Your task to perform on an android device: Search for a tv stand on Ikea Image 0: 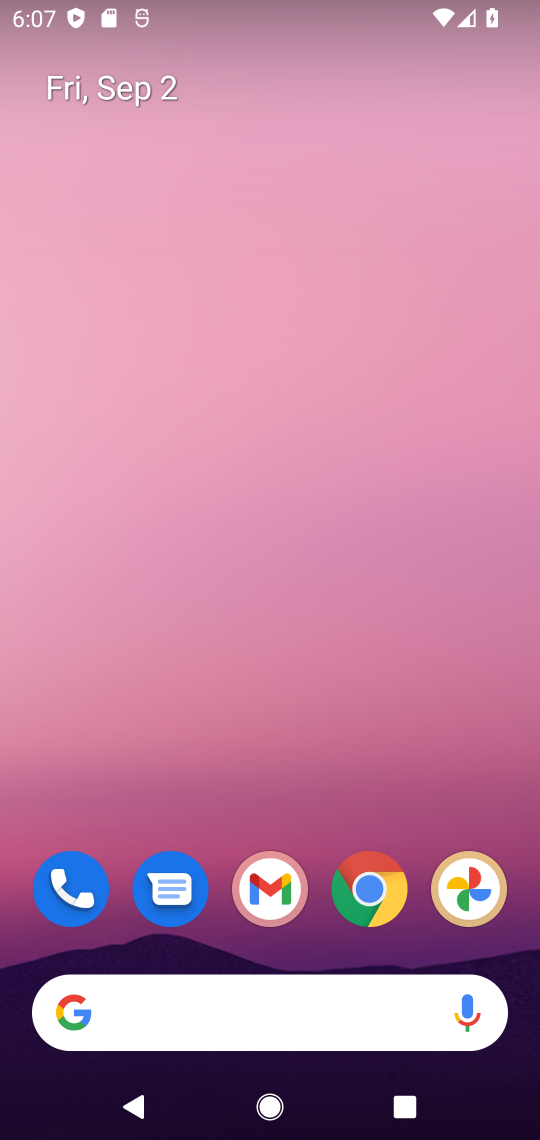
Step 0: click (253, 1032)
Your task to perform on an android device: Search for a tv stand on Ikea Image 1: 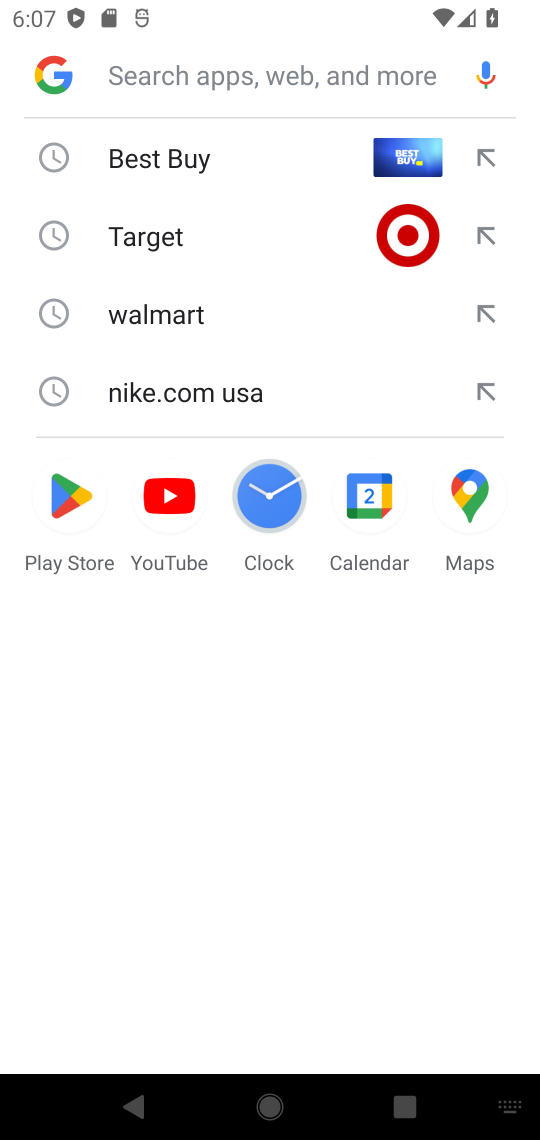
Step 1: type "Ikea"
Your task to perform on an android device: Search for a tv stand on Ikea Image 2: 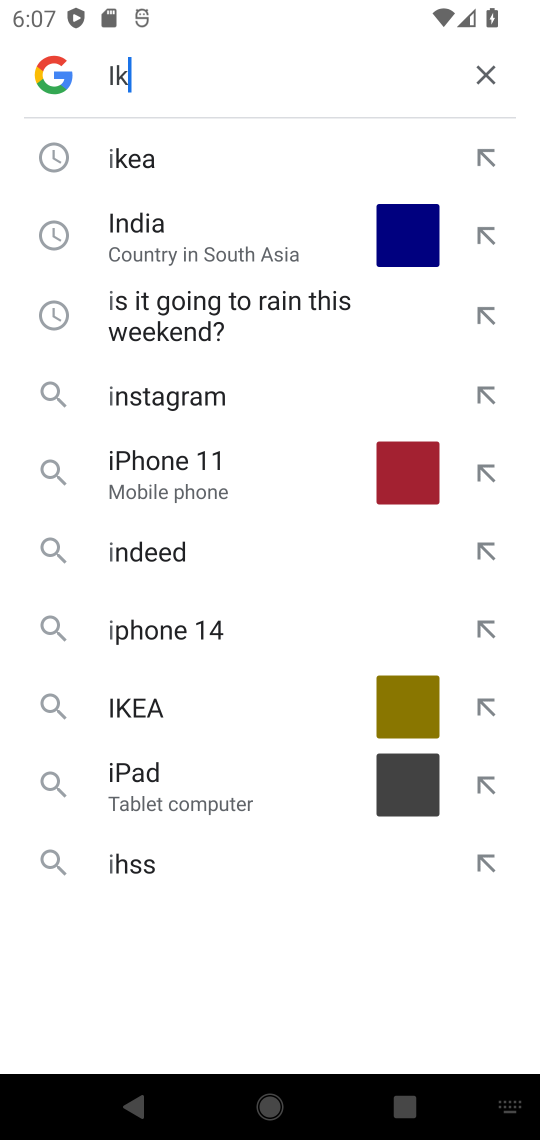
Step 2: type ""
Your task to perform on an android device: Search for a tv stand on Ikea Image 3: 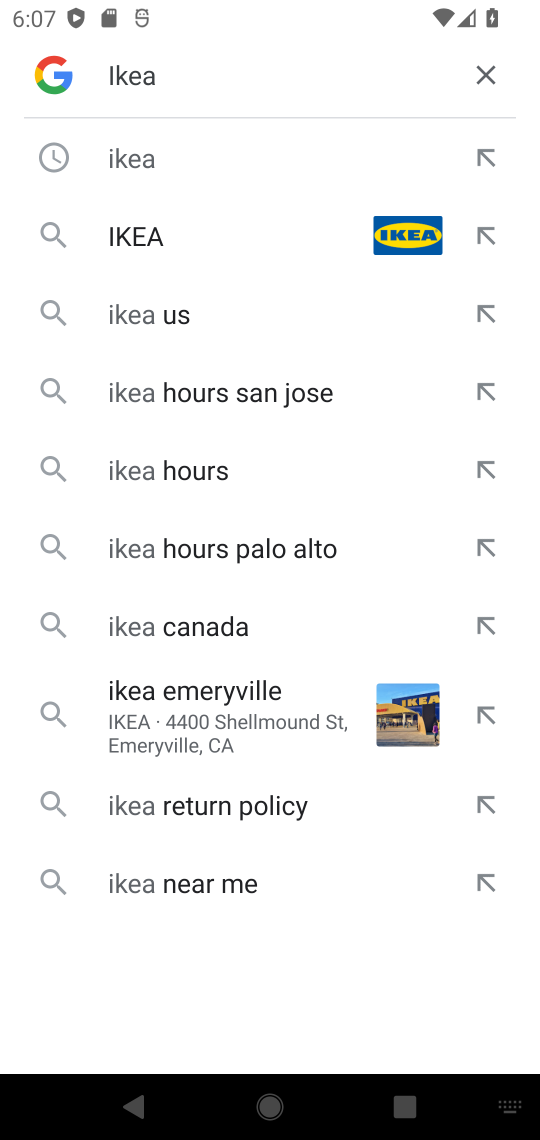
Step 3: click (236, 221)
Your task to perform on an android device: Search for a tv stand on Ikea Image 4: 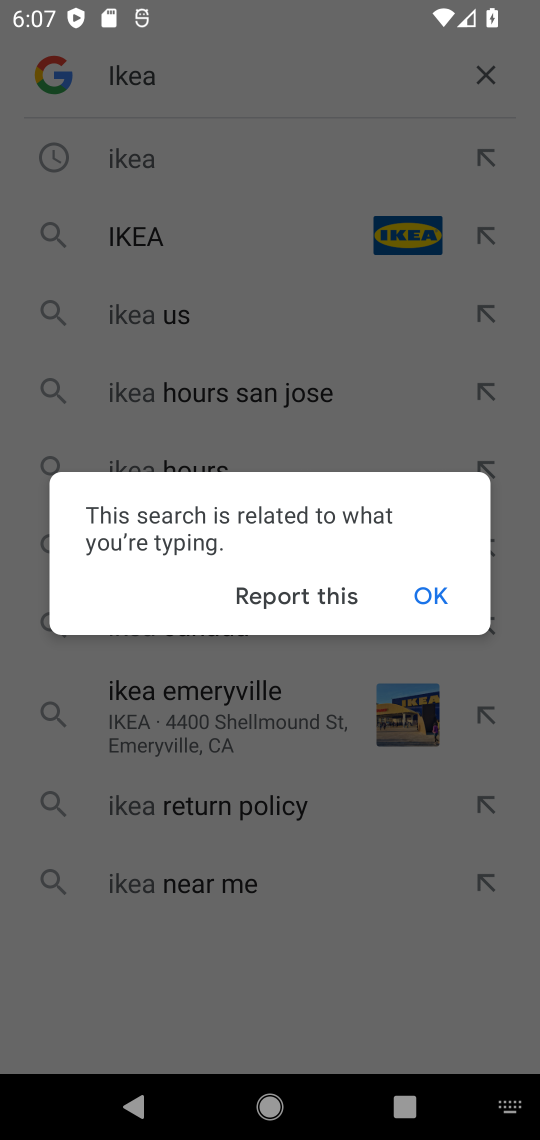
Step 4: click (157, 156)
Your task to perform on an android device: Search for a tv stand on Ikea Image 5: 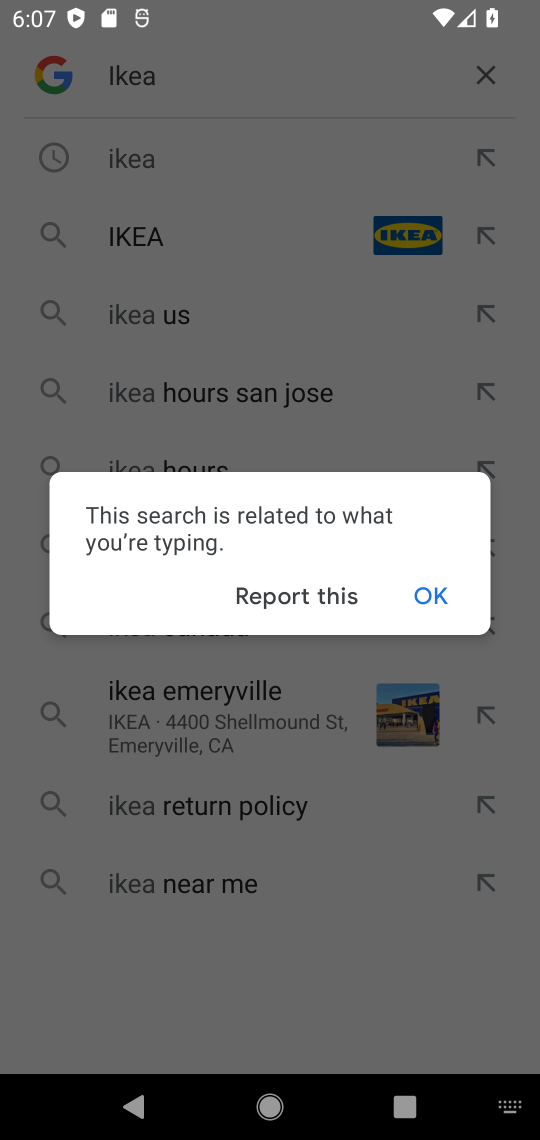
Step 5: click (242, 226)
Your task to perform on an android device: Search for a tv stand on Ikea Image 6: 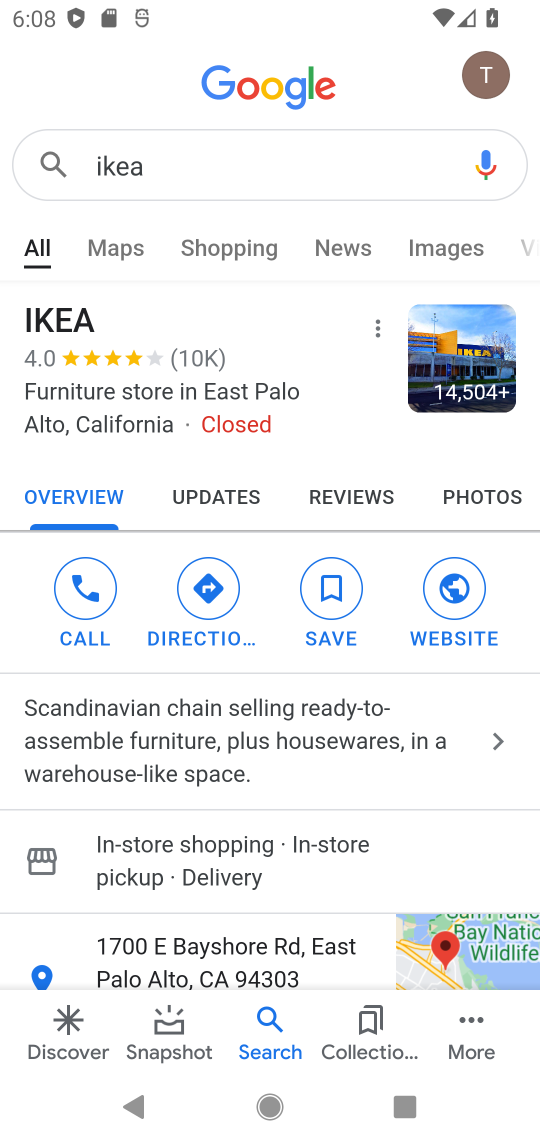
Step 6: drag from (119, 522) to (140, 253)
Your task to perform on an android device: Search for a tv stand on Ikea Image 7: 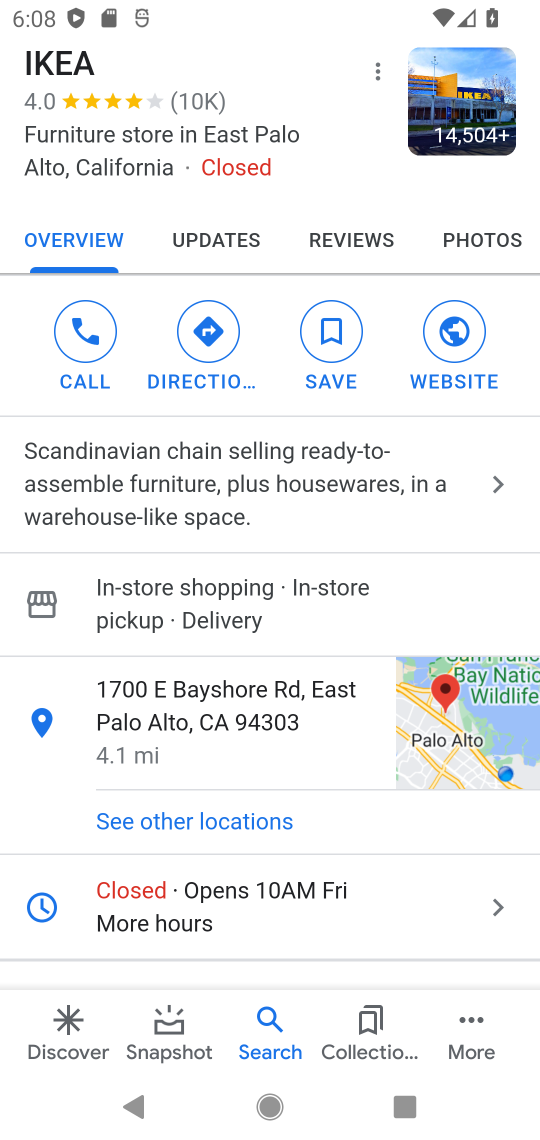
Step 7: drag from (253, 615) to (294, 380)
Your task to perform on an android device: Search for a tv stand on Ikea Image 8: 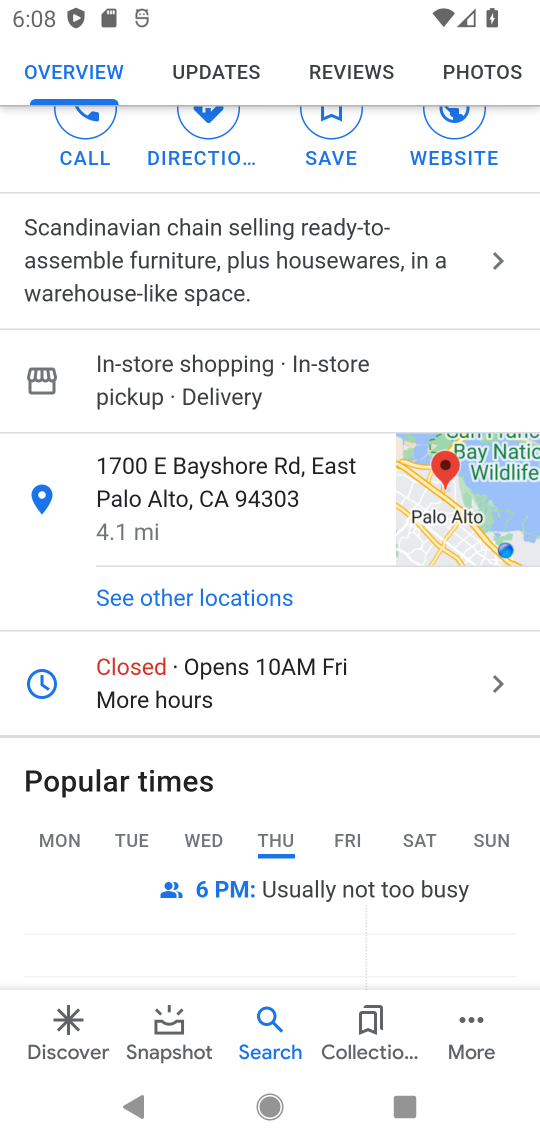
Step 8: drag from (357, 520) to (367, 387)
Your task to perform on an android device: Search for a tv stand on Ikea Image 9: 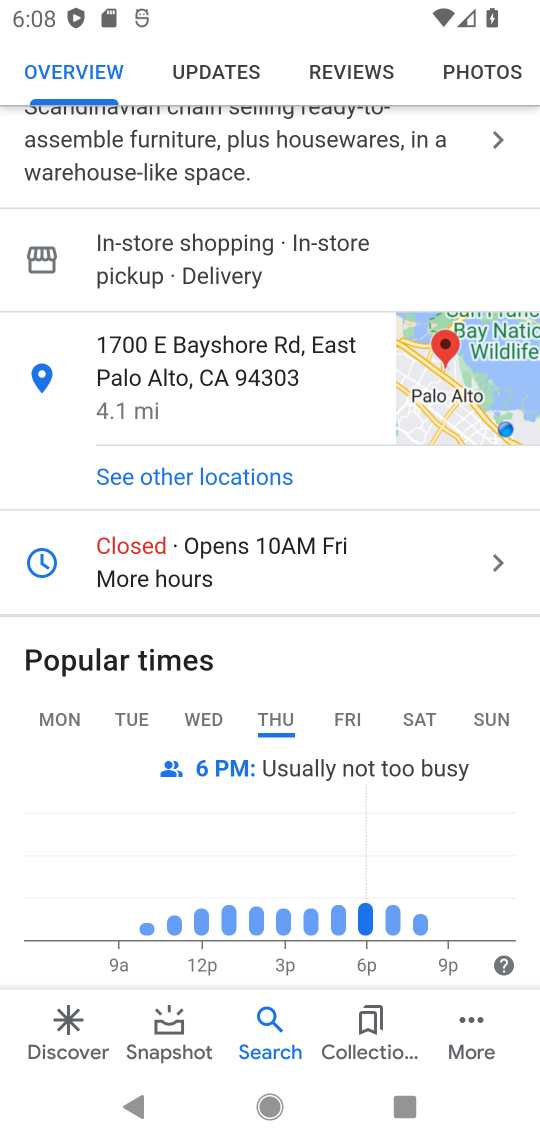
Step 9: drag from (358, 508) to (360, 440)
Your task to perform on an android device: Search for a tv stand on Ikea Image 10: 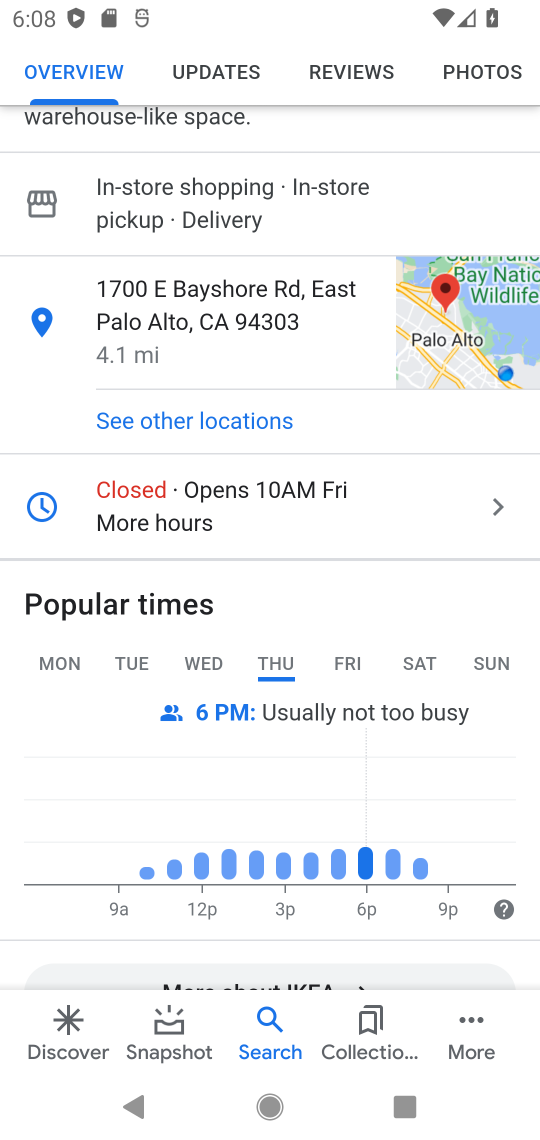
Step 10: click (299, 230)
Your task to perform on an android device: Search for a tv stand on Ikea Image 11: 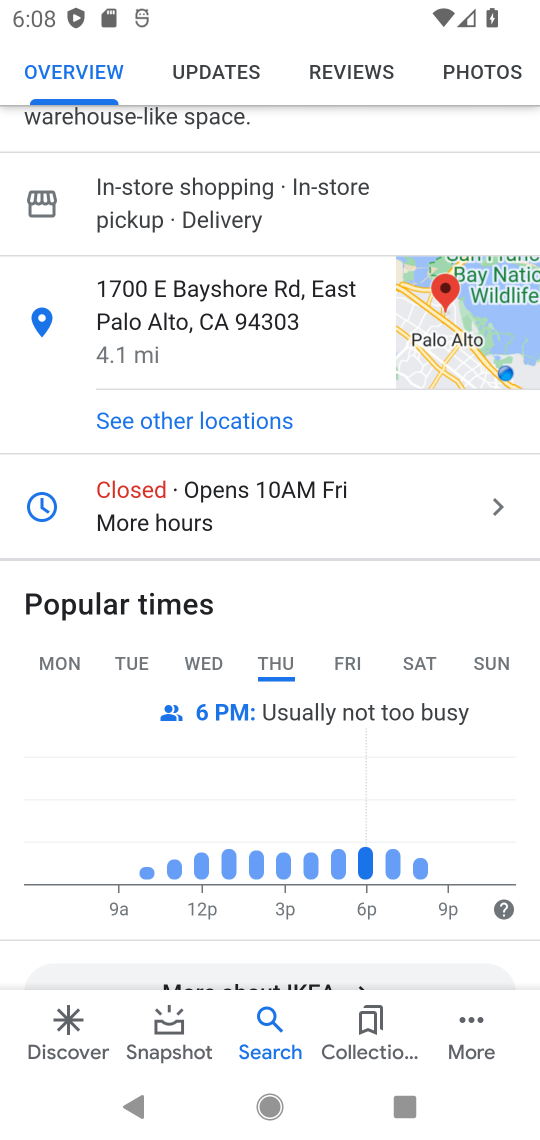
Step 11: drag from (308, 610) to (349, 308)
Your task to perform on an android device: Search for a tv stand on Ikea Image 12: 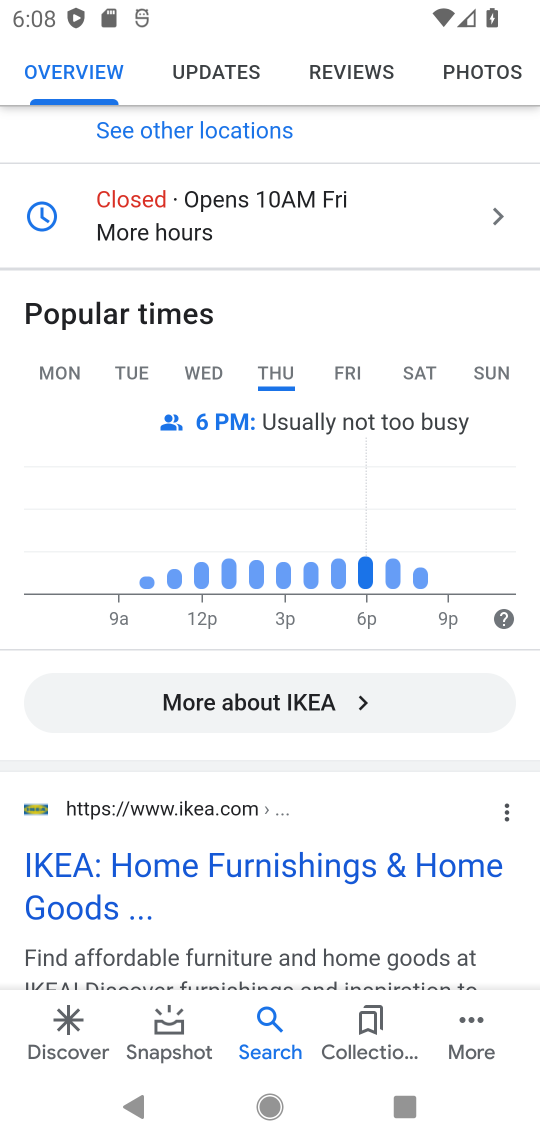
Step 12: click (397, 422)
Your task to perform on an android device: Search for a tv stand on Ikea Image 13: 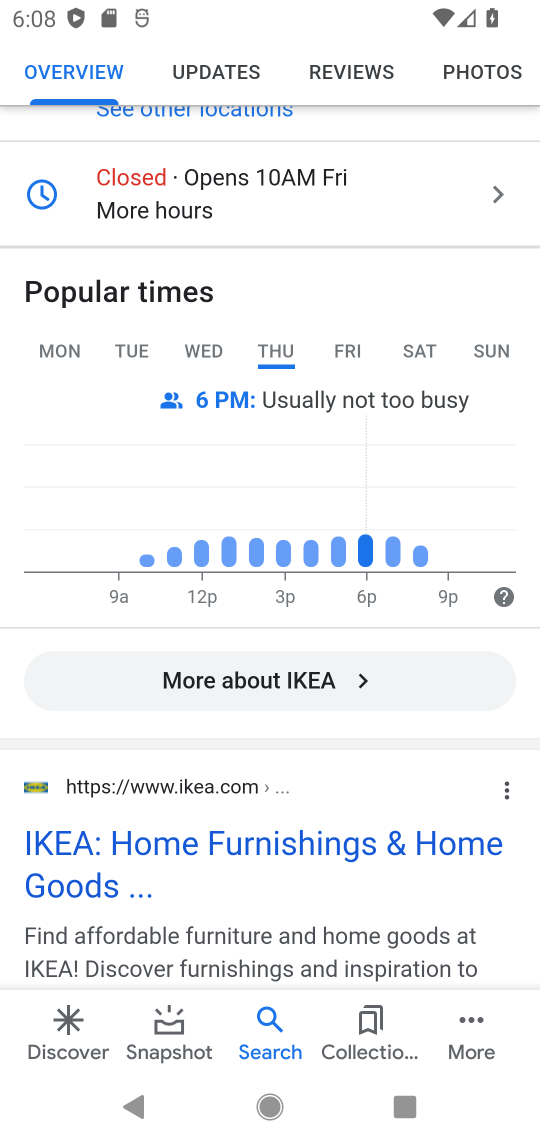
Step 13: click (200, 827)
Your task to perform on an android device: Search for a tv stand on Ikea Image 14: 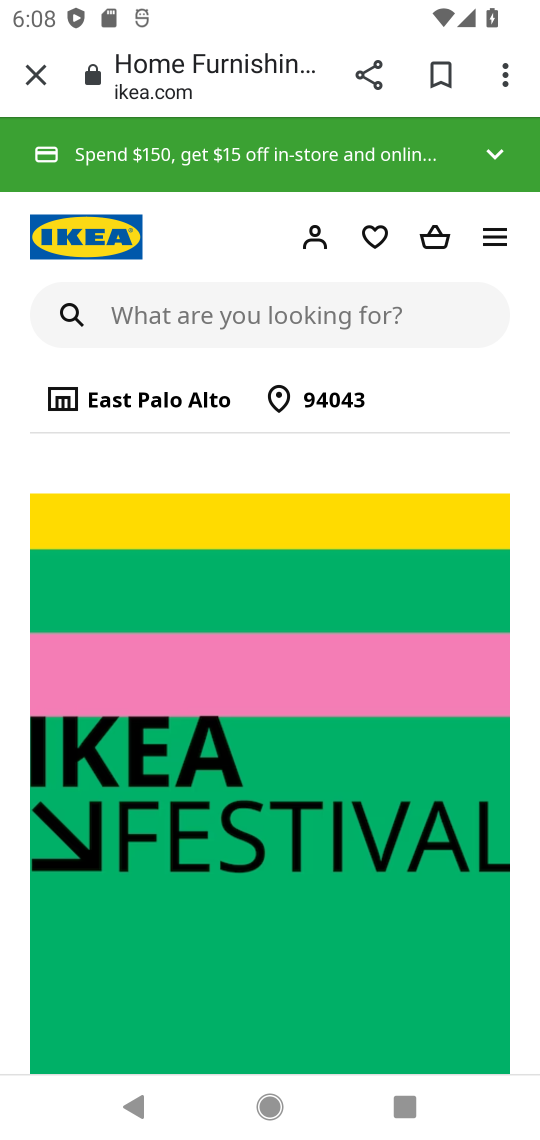
Step 14: click (269, 323)
Your task to perform on an android device: Search for a tv stand on Ikea Image 15: 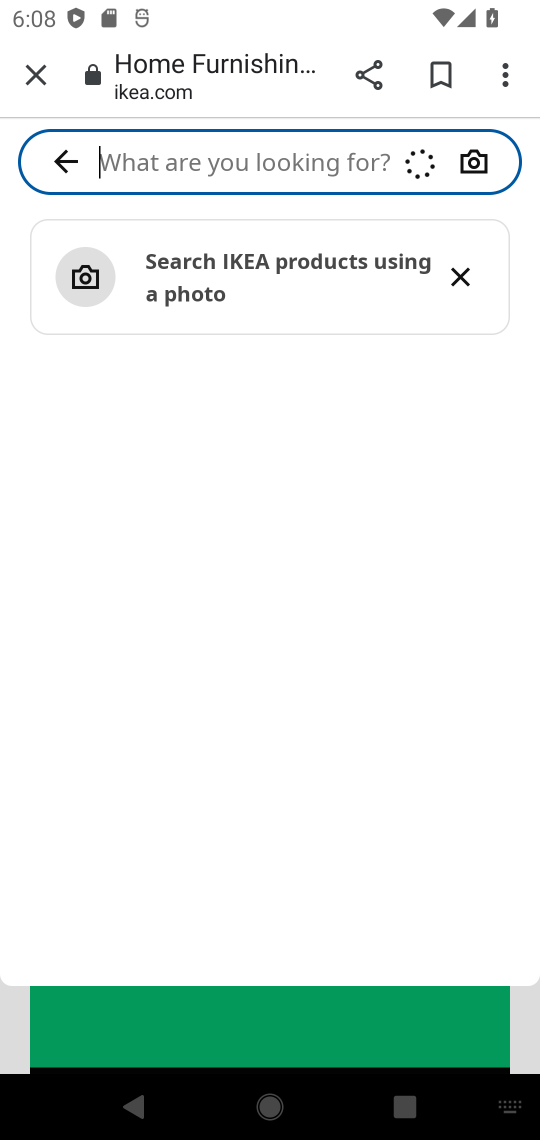
Step 15: type " tv stand"
Your task to perform on an android device: Search for a tv stand on Ikea Image 16: 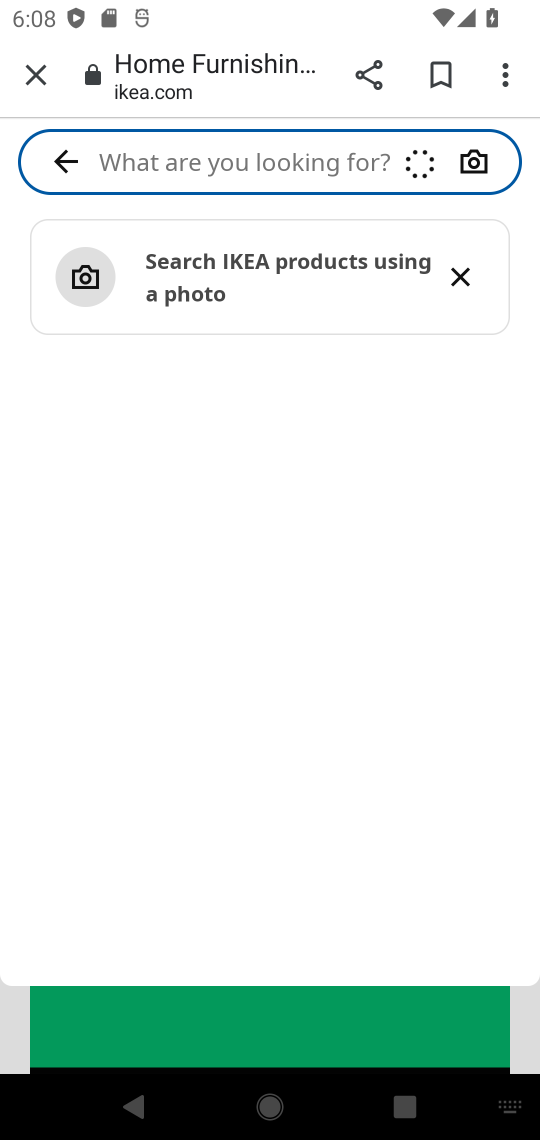
Step 16: type ""
Your task to perform on an android device: Search for a tv stand on Ikea Image 17: 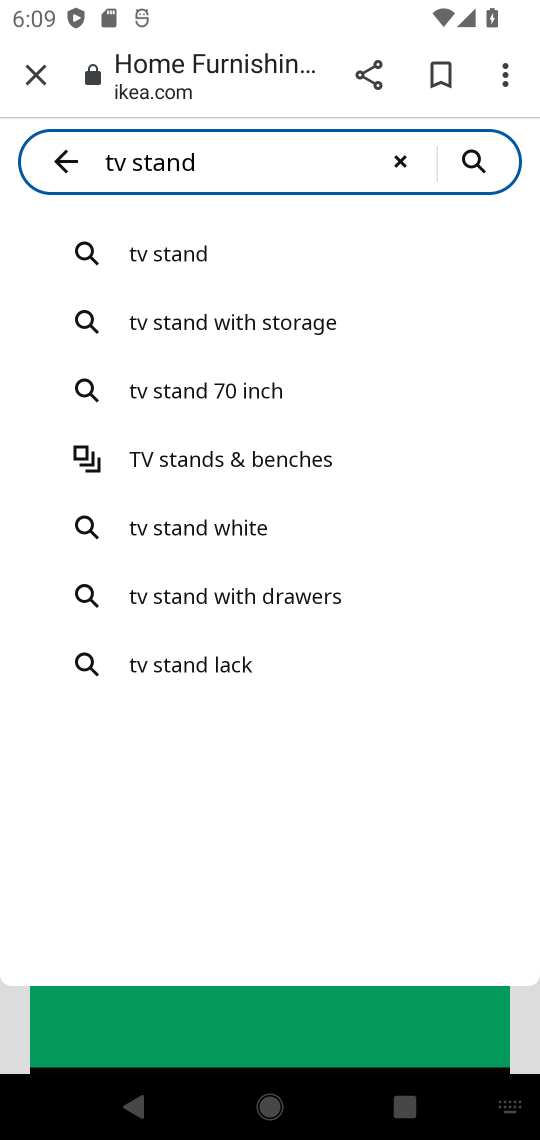
Step 17: click (185, 270)
Your task to perform on an android device: Search for a tv stand on Ikea Image 18: 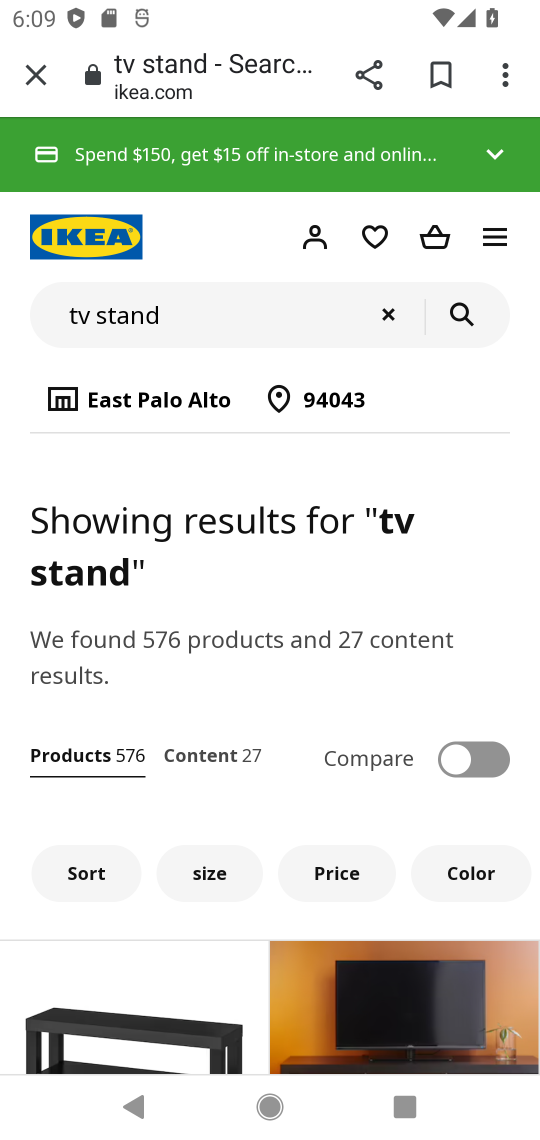
Step 18: drag from (281, 818) to (365, 703)
Your task to perform on an android device: Search for a tv stand on Ikea Image 19: 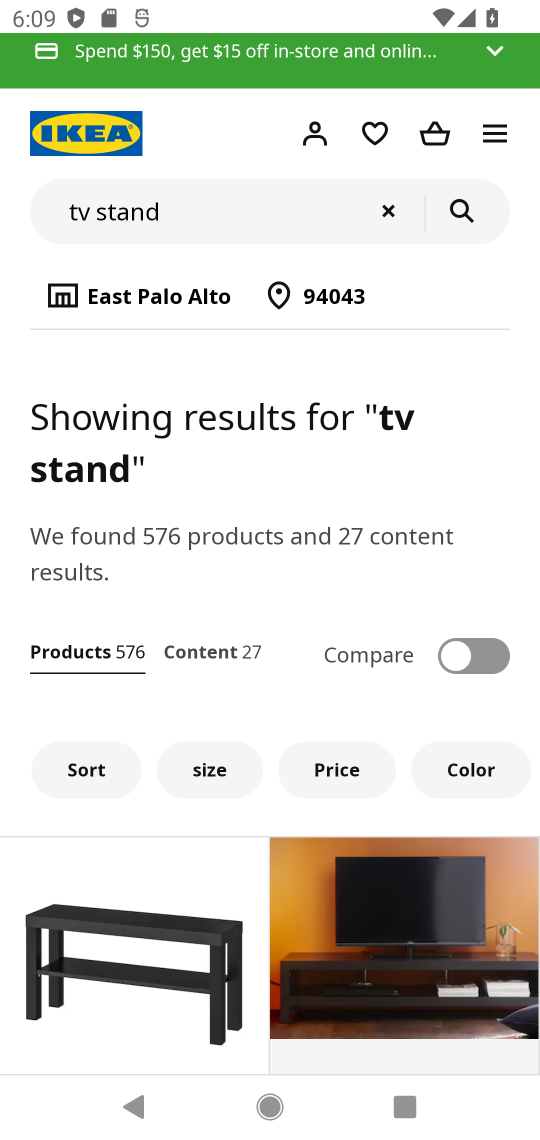
Step 19: click (322, 207)
Your task to perform on an android device: Search for a tv stand on Ikea Image 20: 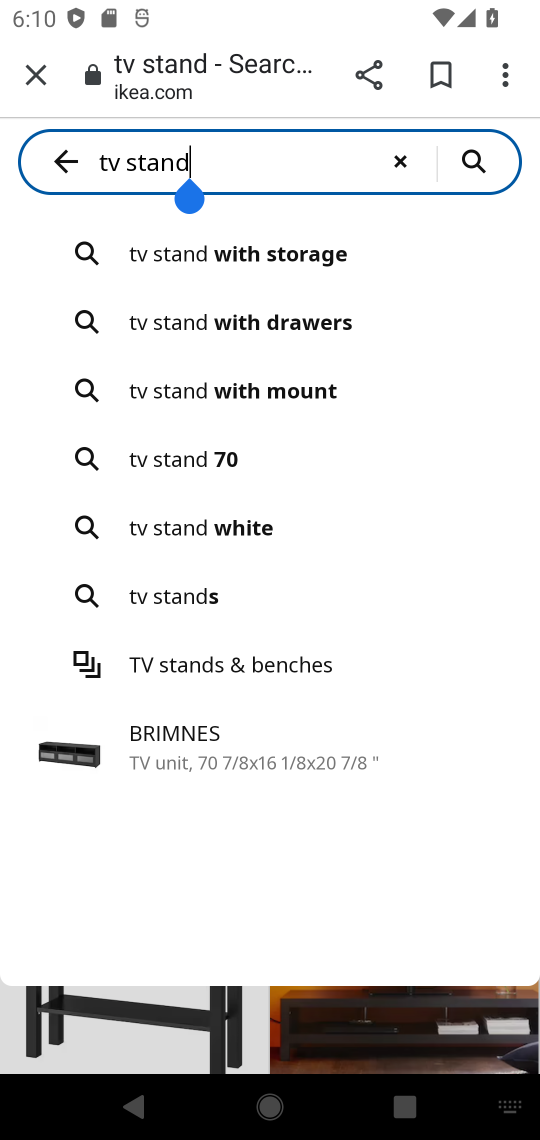
Step 20: click (487, 143)
Your task to perform on an android device: Search for a tv stand on Ikea Image 21: 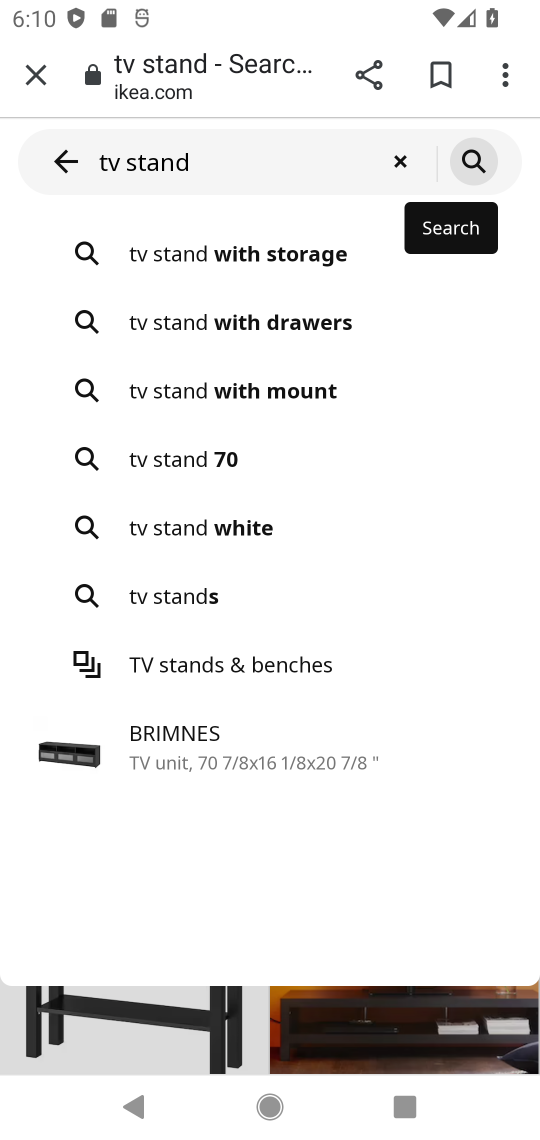
Step 21: click (479, 167)
Your task to perform on an android device: Search for a tv stand on Ikea Image 22: 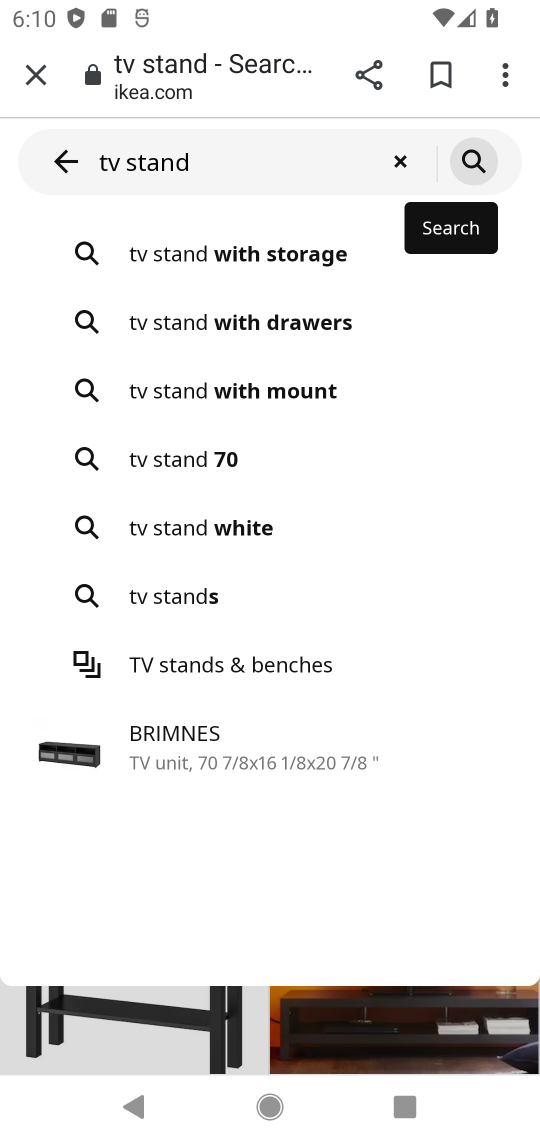
Step 22: task complete